Your task to perform on an android device: toggle improve location accuracy Image 0: 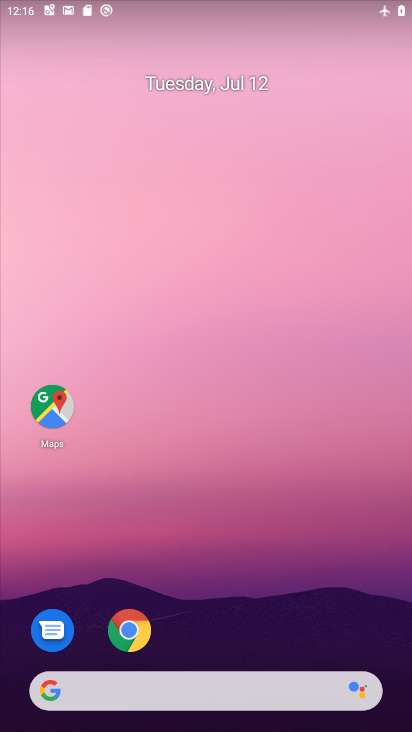
Step 0: drag from (237, 665) to (281, 174)
Your task to perform on an android device: toggle improve location accuracy Image 1: 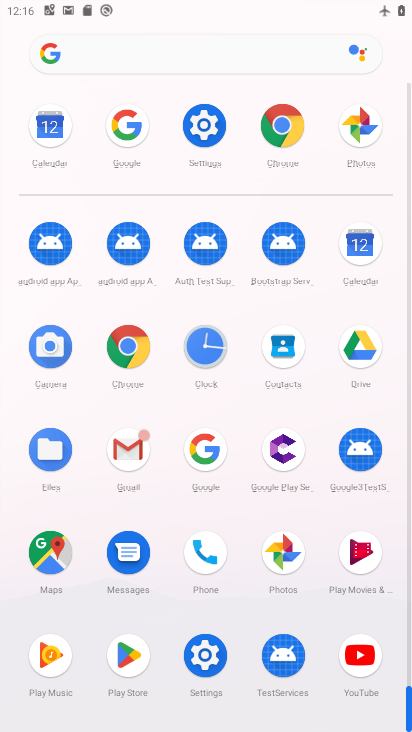
Step 1: click (216, 129)
Your task to perform on an android device: toggle improve location accuracy Image 2: 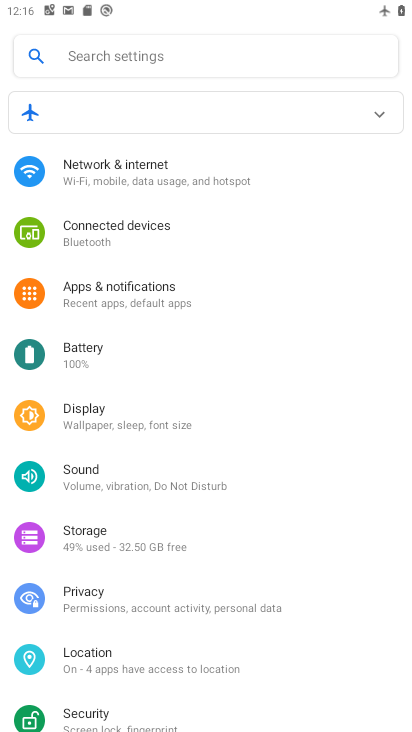
Step 2: drag from (116, 611) to (153, 418)
Your task to perform on an android device: toggle improve location accuracy Image 3: 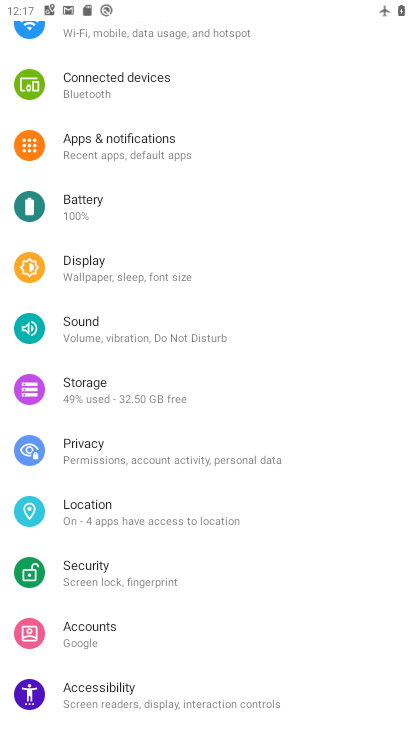
Step 3: click (149, 504)
Your task to perform on an android device: toggle improve location accuracy Image 4: 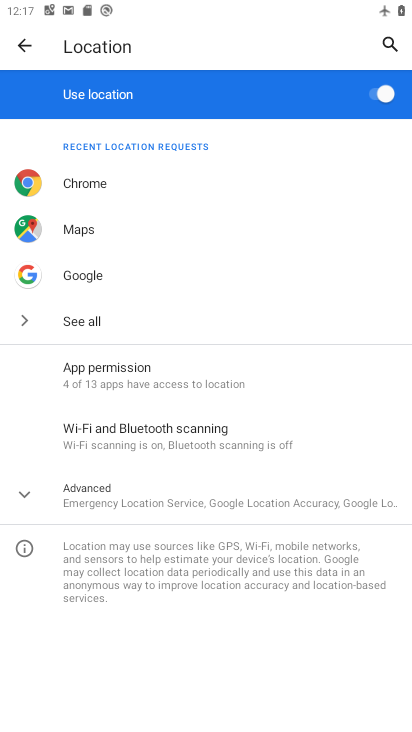
Step 4: click (137, 496)
Your task to perform on an android device: toggle improve location accuracy Image 5: 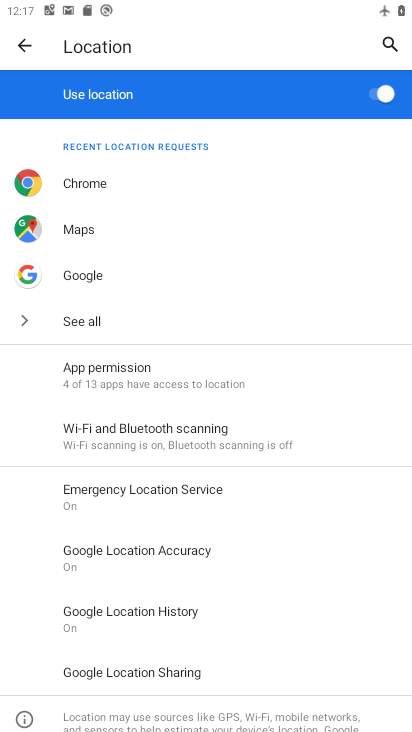
Step 5: click (176, 559)
Your task to perform on an android device: toggle improve location accuracy Image 6: 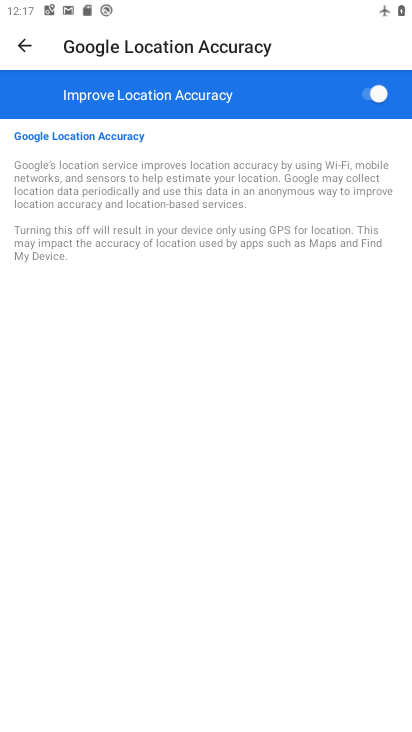
Step 6: click (361, 97)
Your task to perform on an android device: toggle improve location accuracy Image 7: 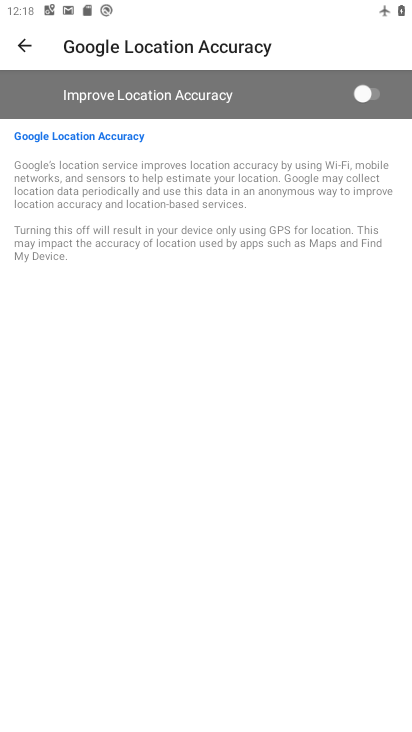
Step 7: task complete